Your task to perform on an android device: see tabs open on other devices in the chrome app Image 0: 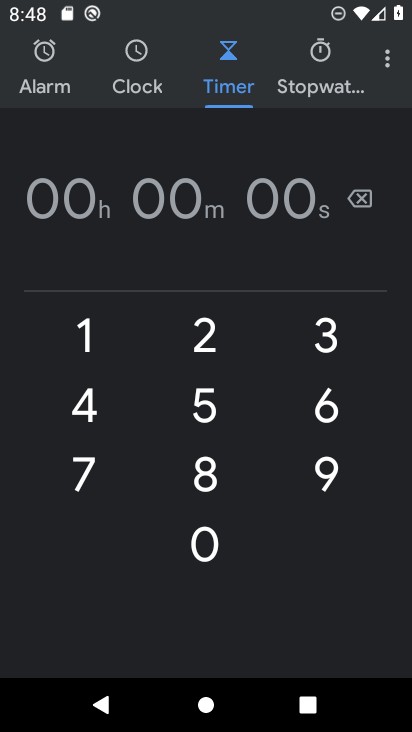
Step 0: press home button
Your task to perform on an android device: see tabs open on other devices in the chrome app Image 1: 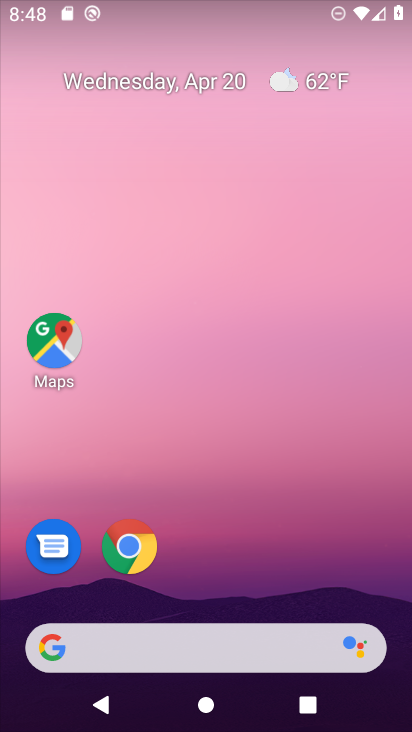
Step 1: click (142, 552)
Your task to perform on an android device: see tabs open on other devices in the chrome app Image 2: 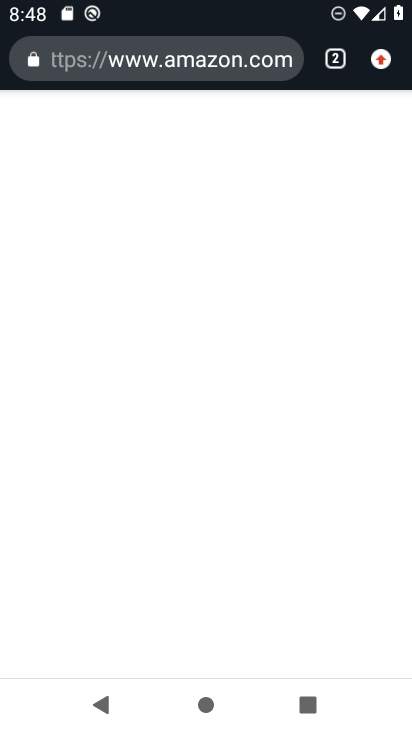
Step 2: click (377, 56)
Your task to perform on an android device: see tabs open on other devices in the chrome app Image 3: 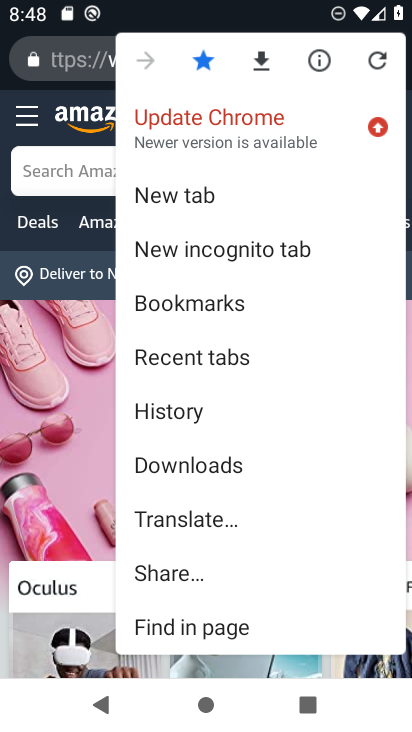
Step 3: click (242, 357)
Your task to perform on an android device: see tabs open on other devices in the chrome app Image 4: 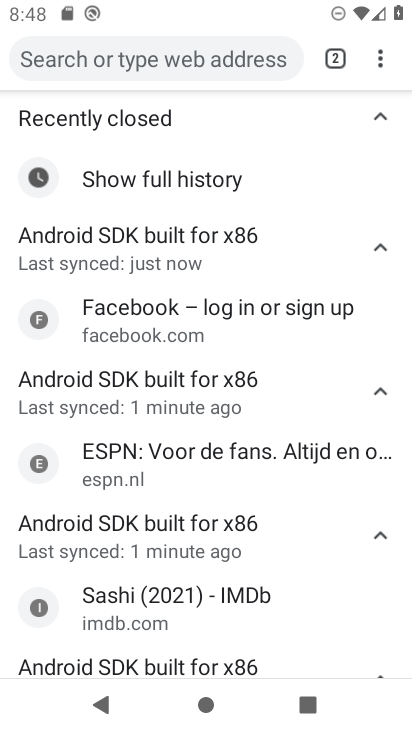
Step 4: task complete